Your task to perform on an android device: Open network settings Image 0: 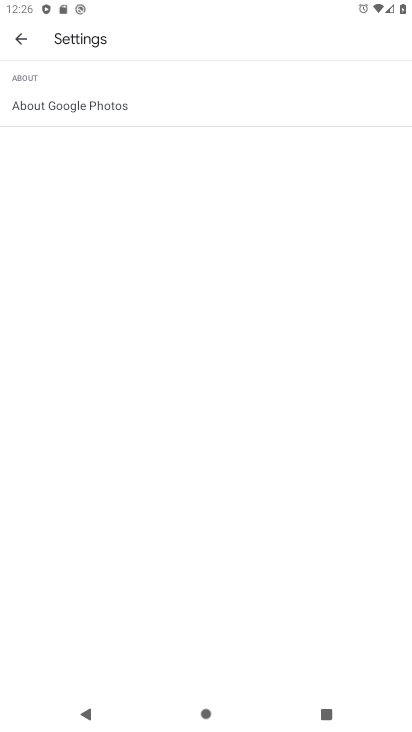
Step 0: press home button
Your task to perform on an android device: Open network settings Image 1: 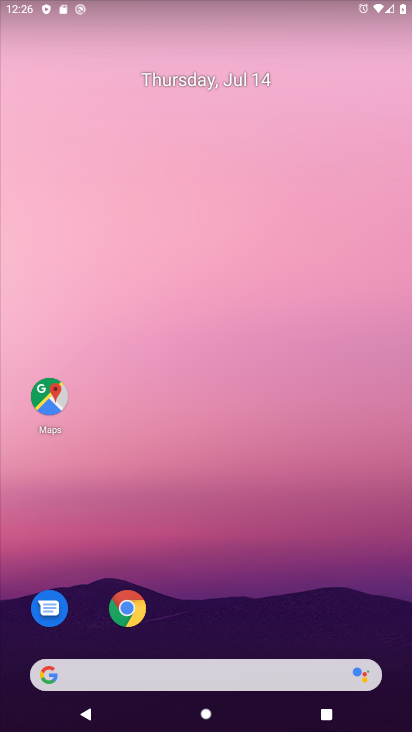
Step 1: drag from (183, 671) to (294, 118)
Your task to perform on an android device: Open network settings Image 2: 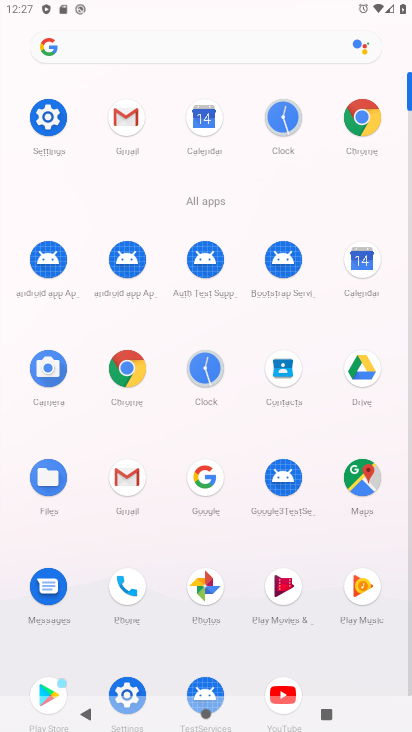
Step 2: click (50, 116)
Your task to perform on an android device: Open network settings Image 3: 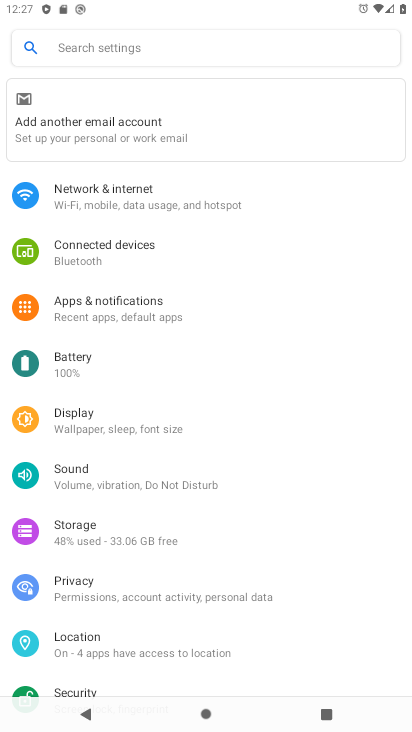
Step 3: click (116, 206)
Your task to perform on an android device: Open network settings Image 4: 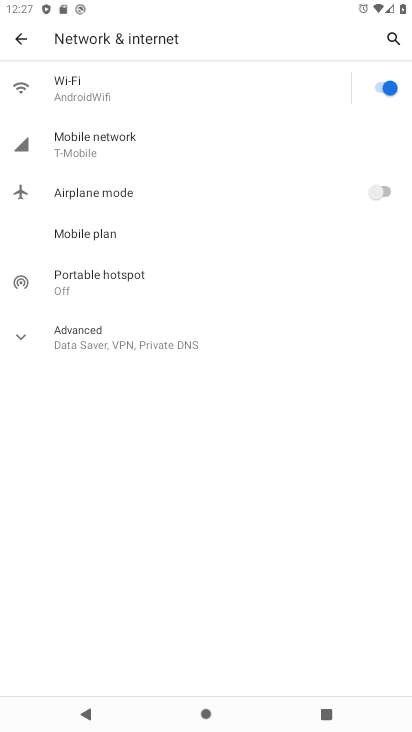
Step 4: task complete